Your task to perform on an android device: Show me the alarms in the clock app Image 0: 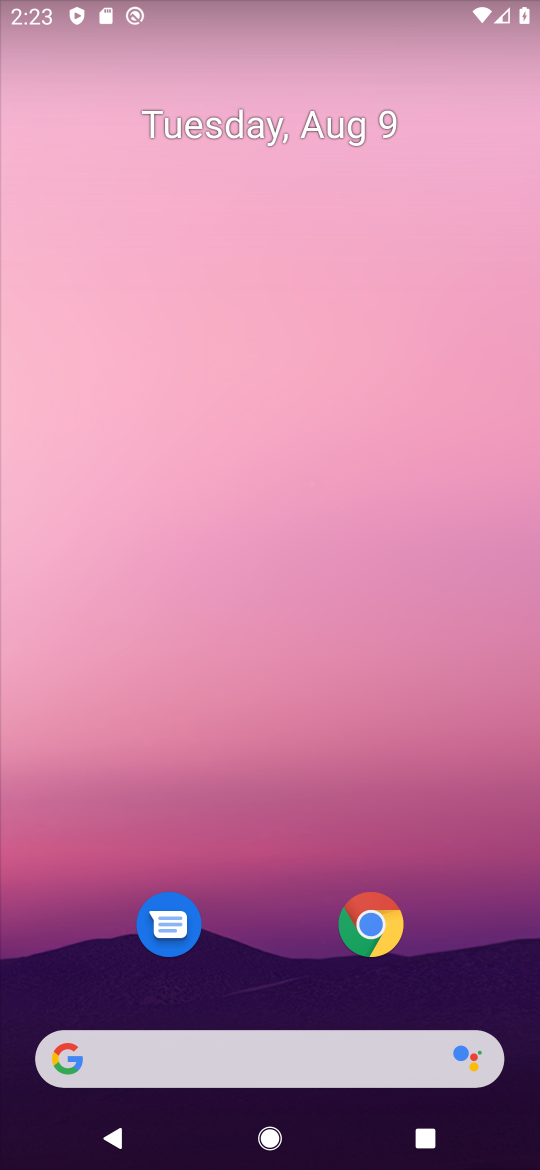
Step 0: drag from (276, 877) to (355, 0)
Your task to perform on an android device: Show me the alarms in the clock app Image 1: 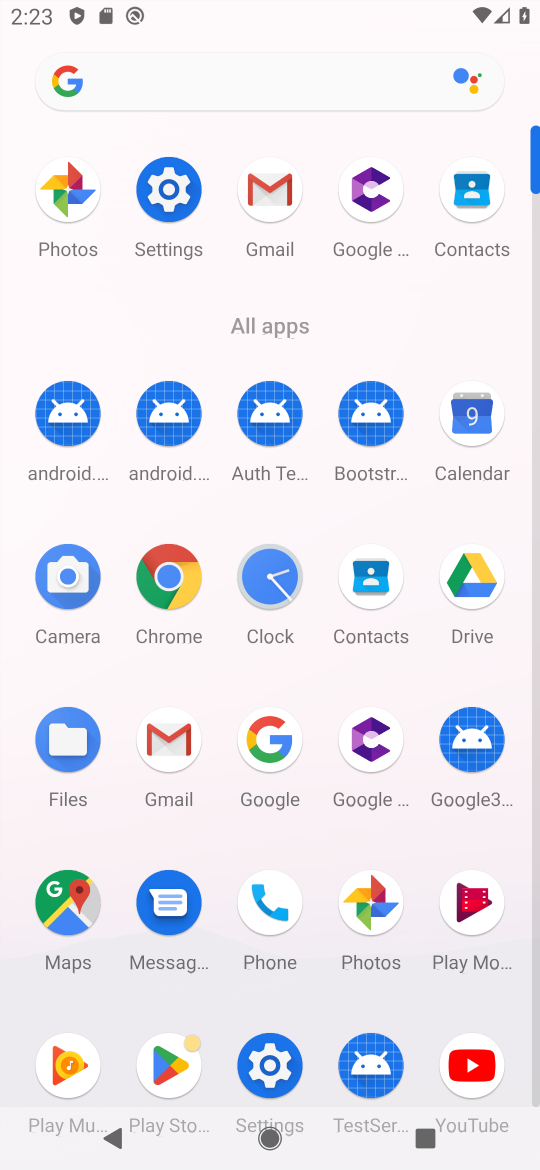
Step 1: click (277, 580)
Your task to perform on an android device: Show me the alarms in the clock app Image 2: 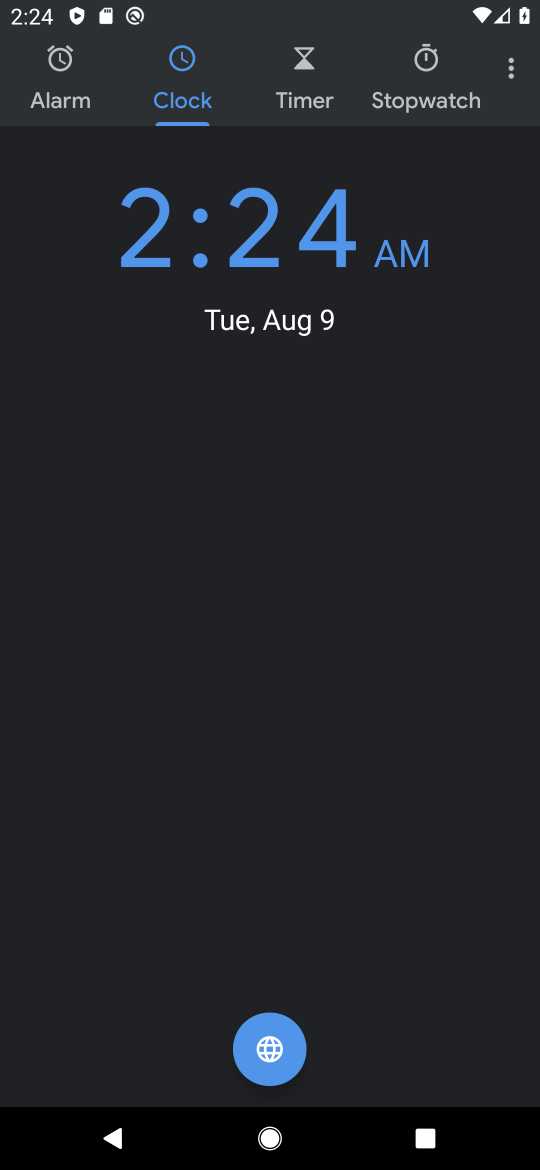
Step 2: click (71, 71)
Your task to perform on an android device: Show me the alarms in the clock app Image 3: 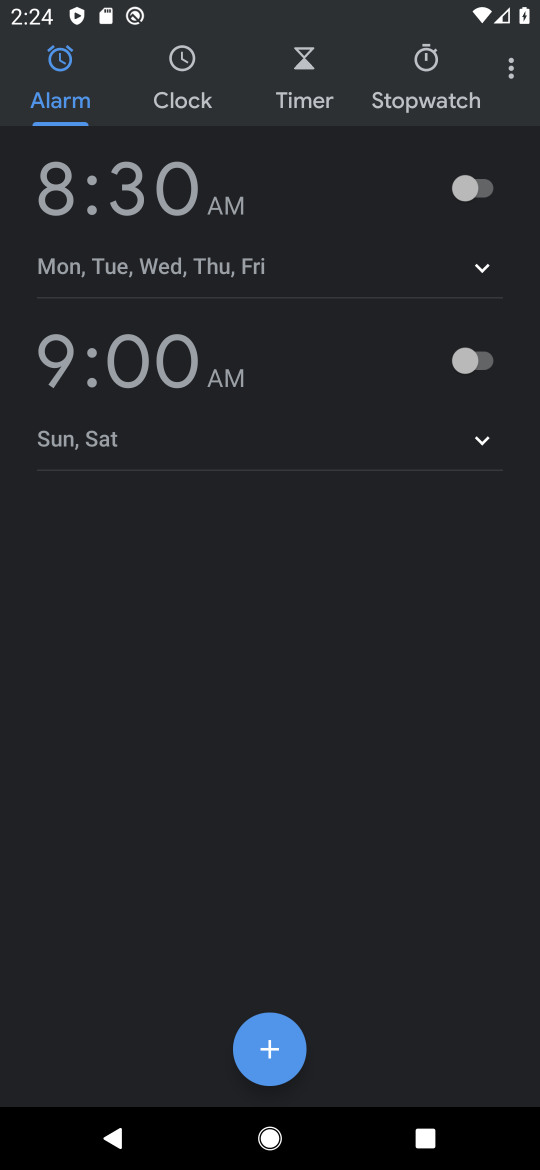
Step 3: task complete